Your task to perform on an android device: Add "amazon basics triple a" to the cart on costco.com, then select checkout. Image 0: 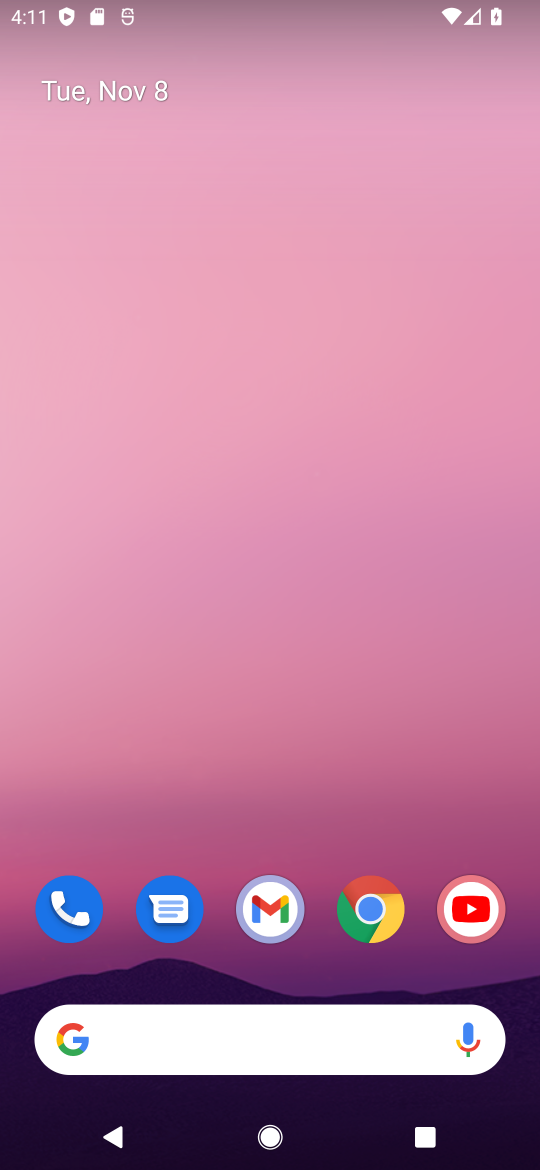
Step 0: click (360, 920)
Your task to perform on an android device: Add "amazon basics triple a" to the cart on costco.com, then select checkout. Image 1: 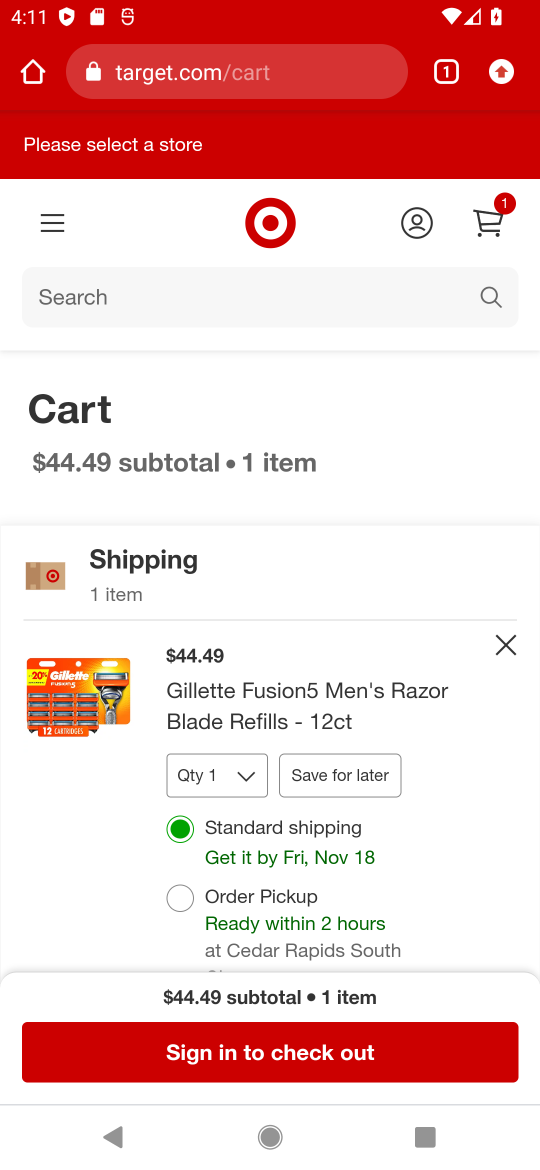
Step 1: click (306, 71)
Your task to perform on an android device: Add "amazon basics triple a" to the cart on costco.com, then select checkout. Image 2: 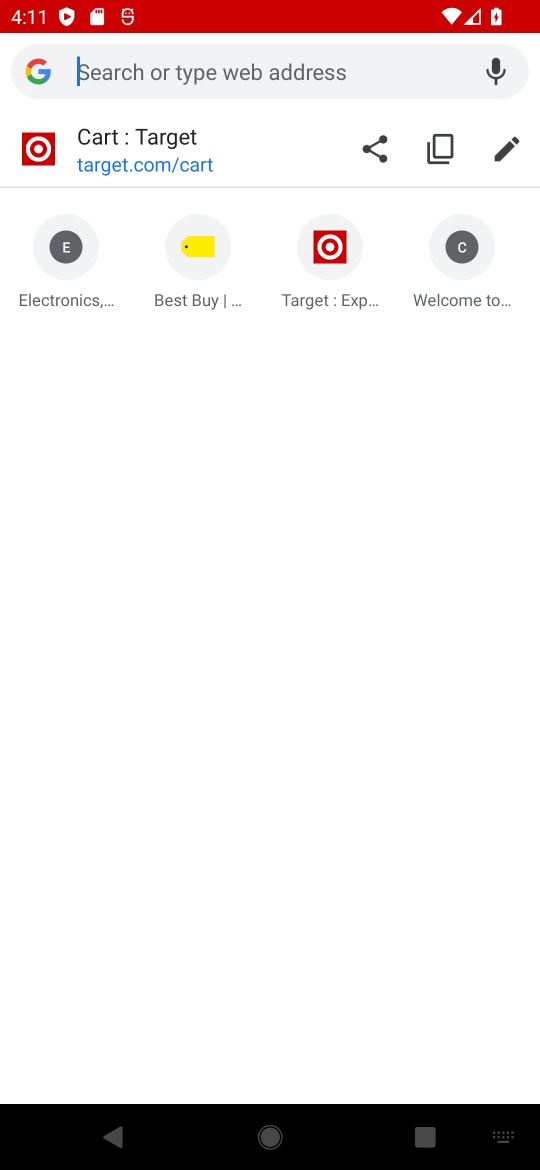
Step 2: type "costco.com"
Your task to perform on an android device: Add "amazon basics triple a" to the cart on costco.com, then select checkout. Image 3: 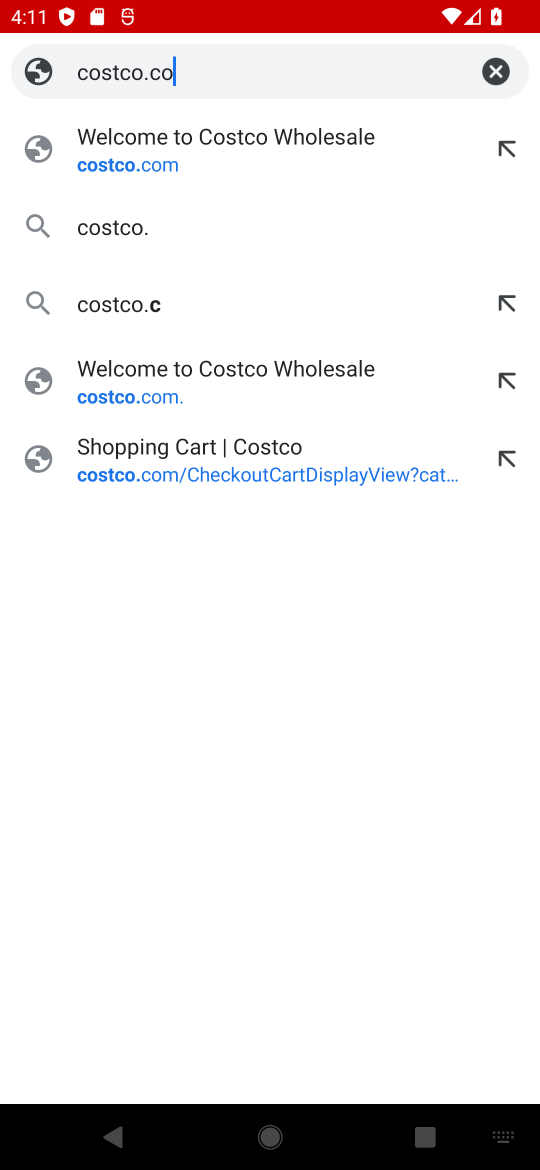
Step 3: press enter
Your task to perform on an android device: Add "amazon basics triple a" to the cart on costco.com, then select checkout. Image 4: 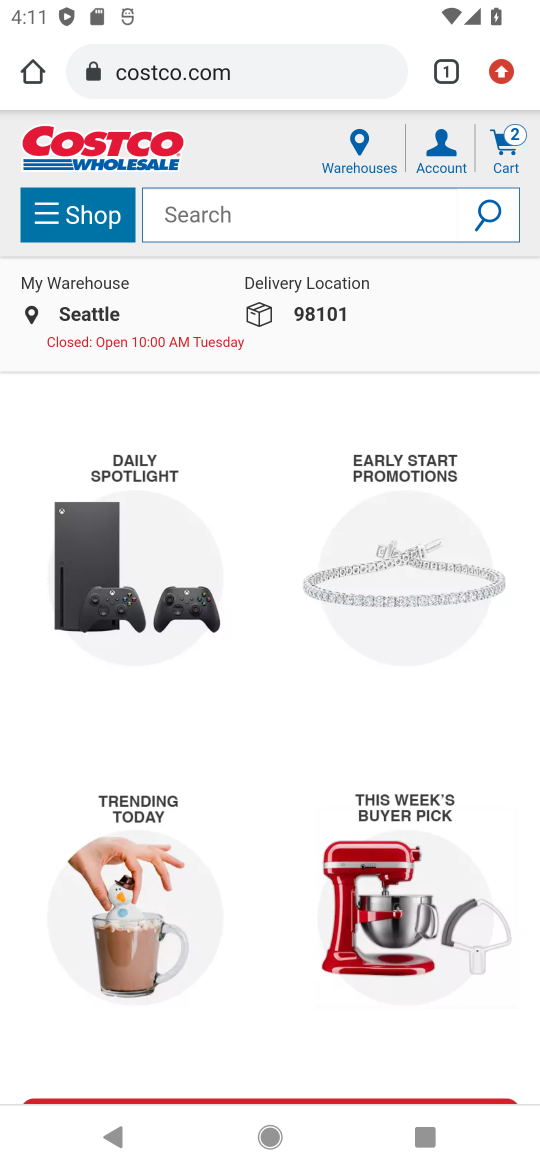
Step 4: click (226, 204)
Your task to perform on an android device: Add "amazon basics triple a" to the cart on costco.com, then select checkout. Image 5: 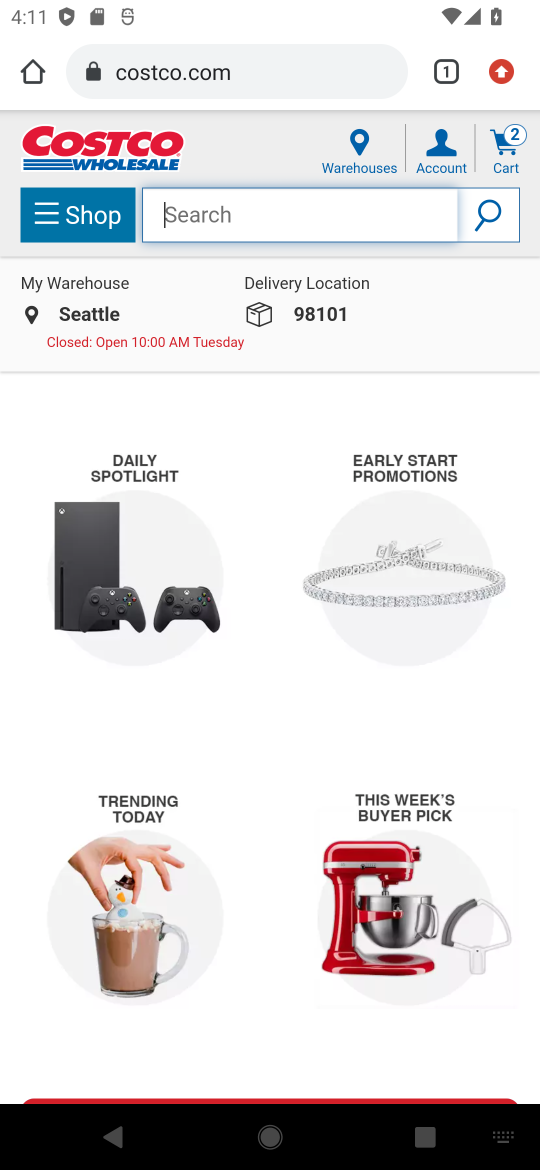
Step 5: type "amazon basics triple a"
Your task to perform on an android device: Add "amazon basics triple a" to the cart on costco.com, then select checkout. Image 6: 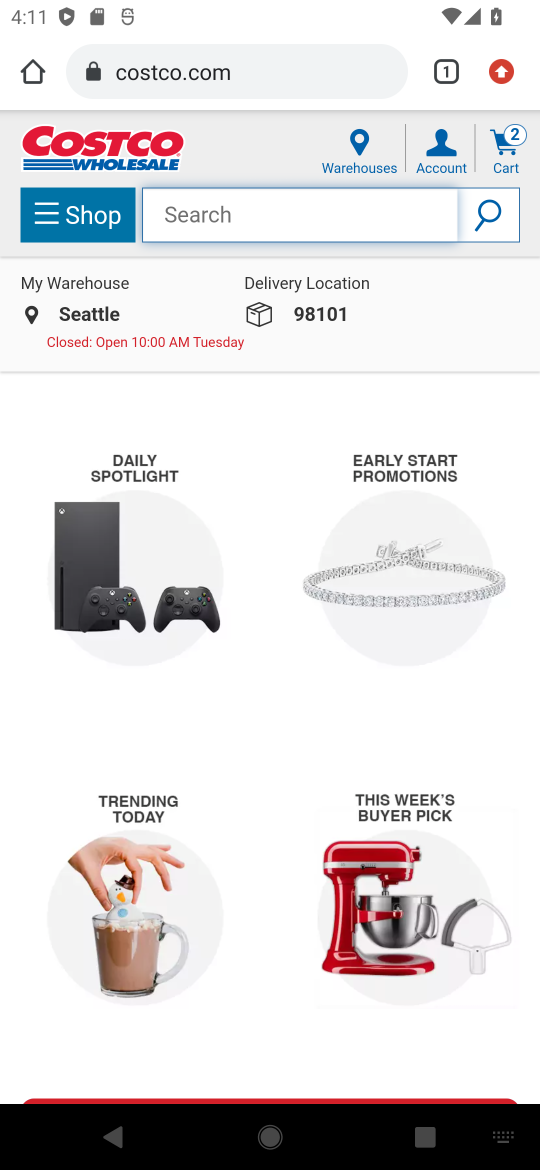
Step 6: press enter
Your task to perform on an android device: Add "amazon basics triple a" to the cart on costco.com, then select checkout. Image 7: 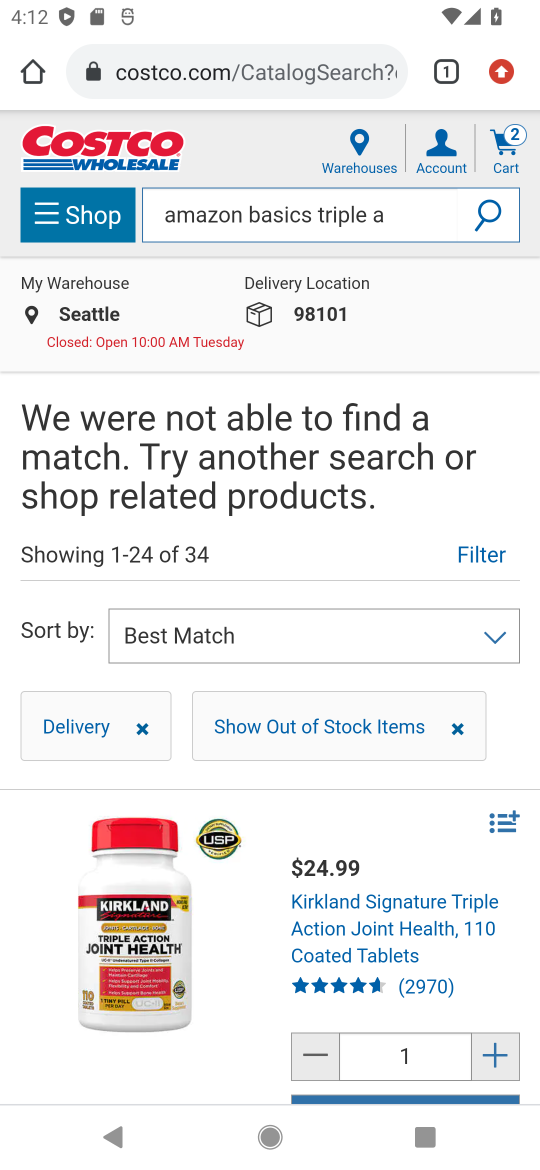
Step 7: task complete